Your task to perform on an android device: turn on the 24-hour format for clock Image 0: 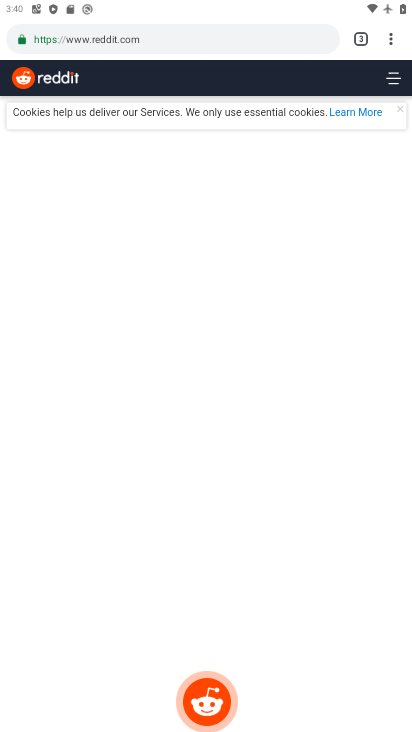
Step 0: press home button
Your task to perform on an android device: turn on the 24-hour format for clock Image 1: 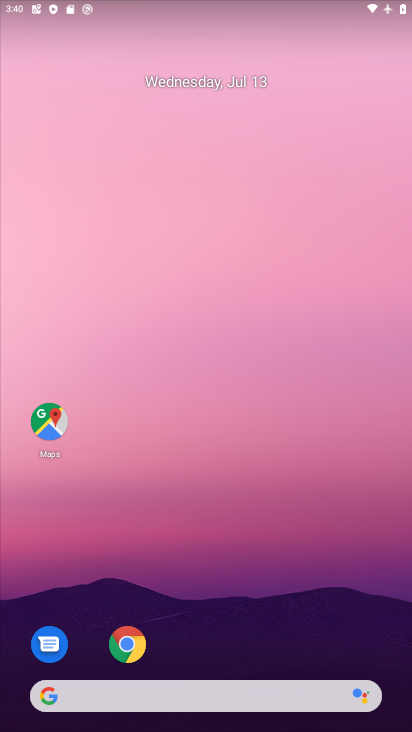
Step 1: drag from (263, 616) to (166, 29)
Your task to perform on an android device: turn on the 24-hour format for clock Image 2: 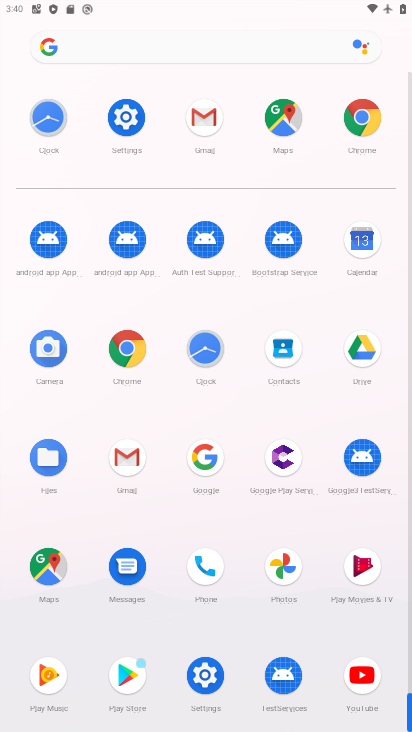
Step 2: click (47, 131)
Your task to perform on an android device: turn on the 24-hour format for clock Image 3: 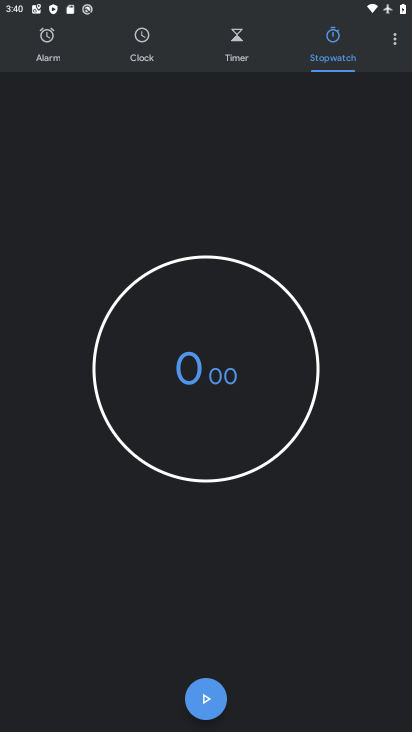
Step 3: click (394, 43)
Your task to perform on an android device: turn on the 24-hour format for clock Image 4: 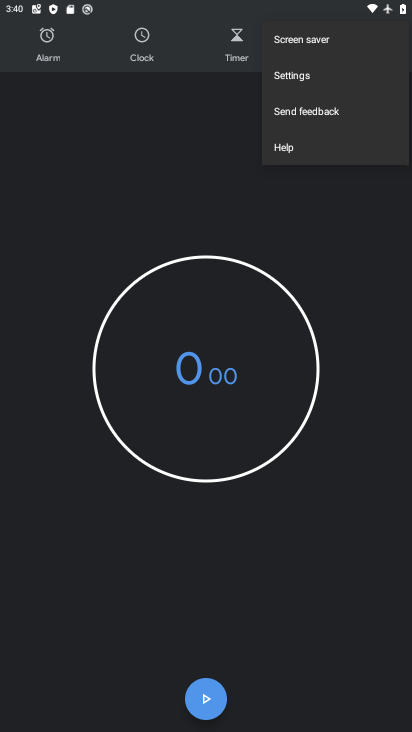
Step 4: click (307, 70)
Your task to perform on an android device: turn on the 24-hour format for clock Image 5: 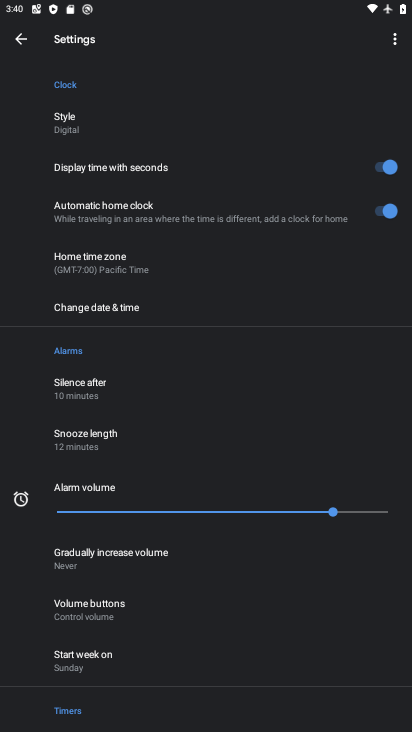
Step 5: click (146, 300)
Your task to perform on an android device: turn on the 24-hour format for clock Image 6: 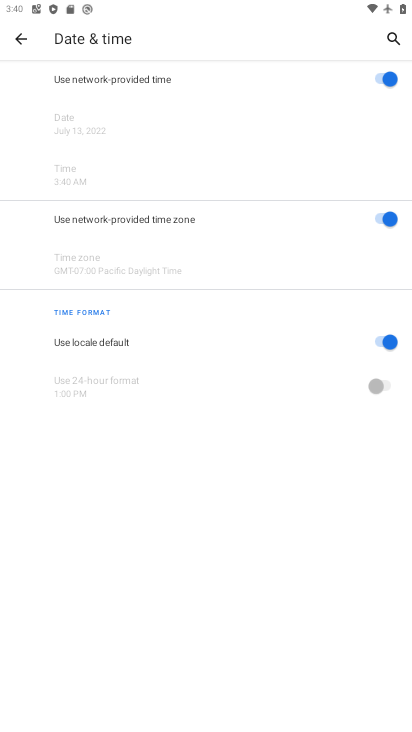
Step 6: click (397, 338)
Your task to perform on an android device: turn on the 24-hour format for clock Image 7: 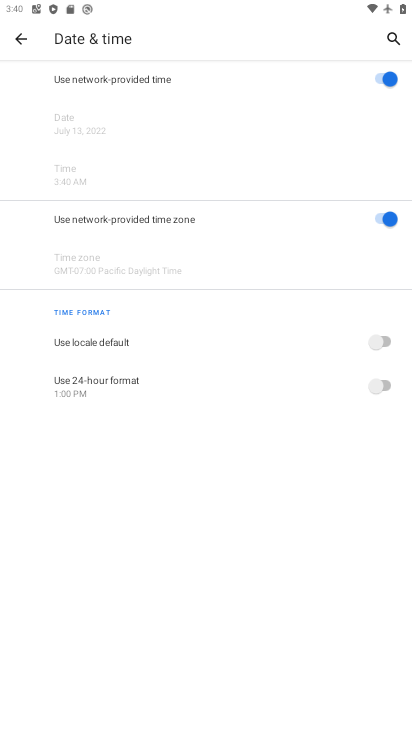
Step 7: click (380, 387)
Your task to perform on an android device: turn on the 24-hour format for clock Image 8: 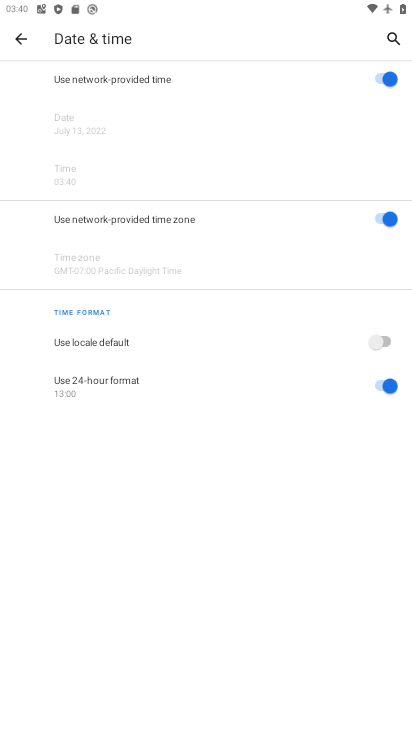
Step 8: task complete